Your task to perform on an android device: Open the web browser Image 0: 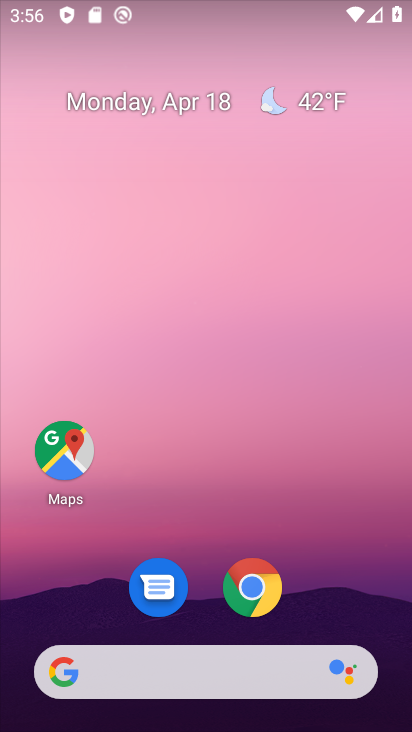
Step 0: click (263, 580)
Your task to perform on an android device: Open the web browser Image 1: 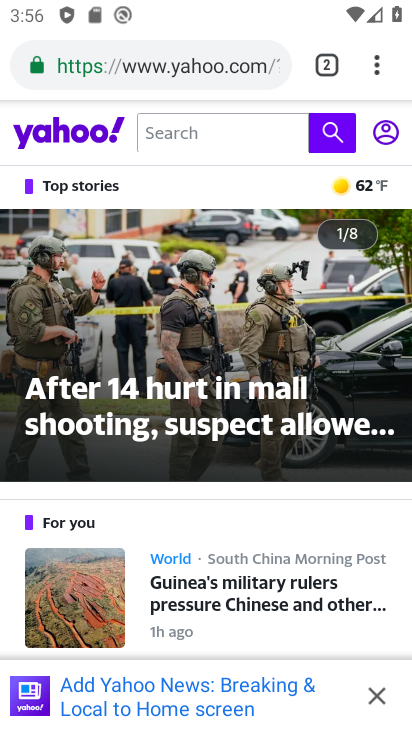
Step 1: task complete